Your task to perform on an android device: open app "DuckDuckGo Privacy Browser" Image 0: 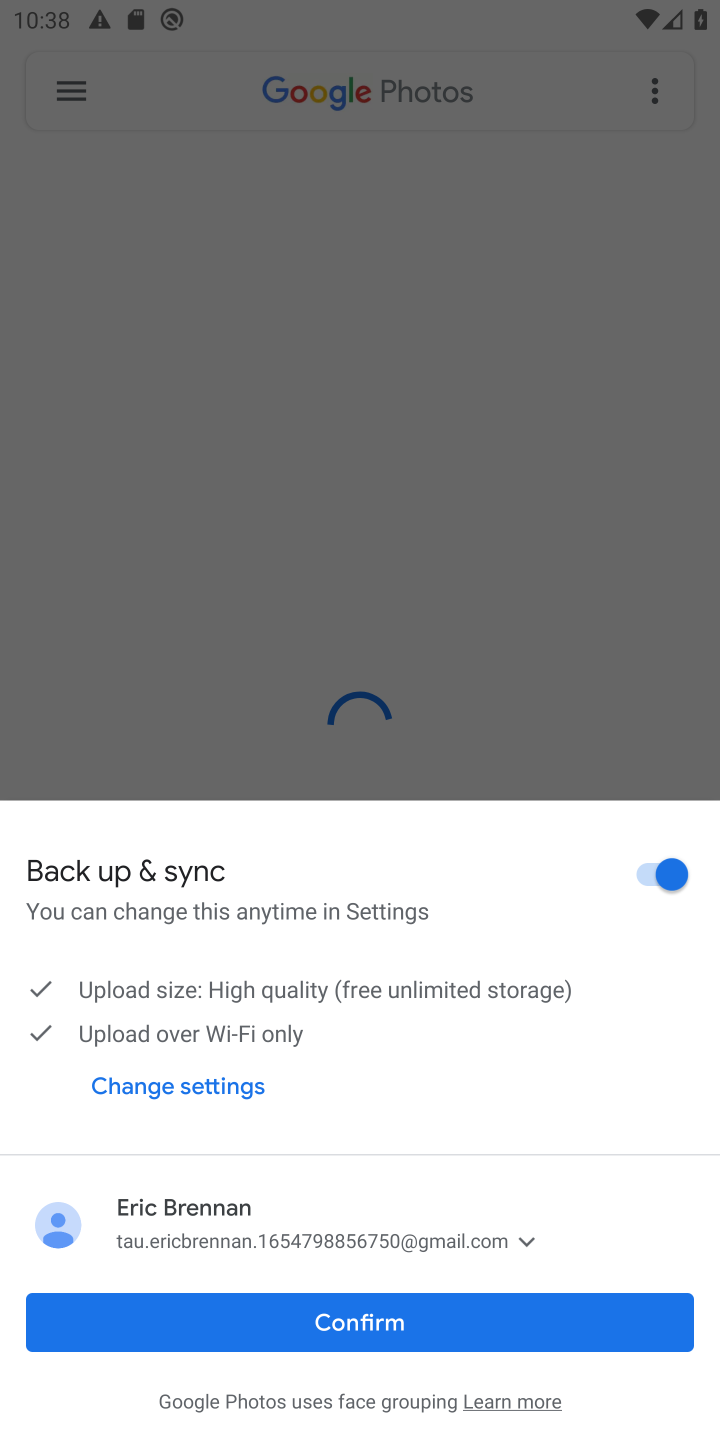
Step 0: press home button
Your task to perform on an android device: open app "DuckDuckGo Privacy Browser" Image 1: 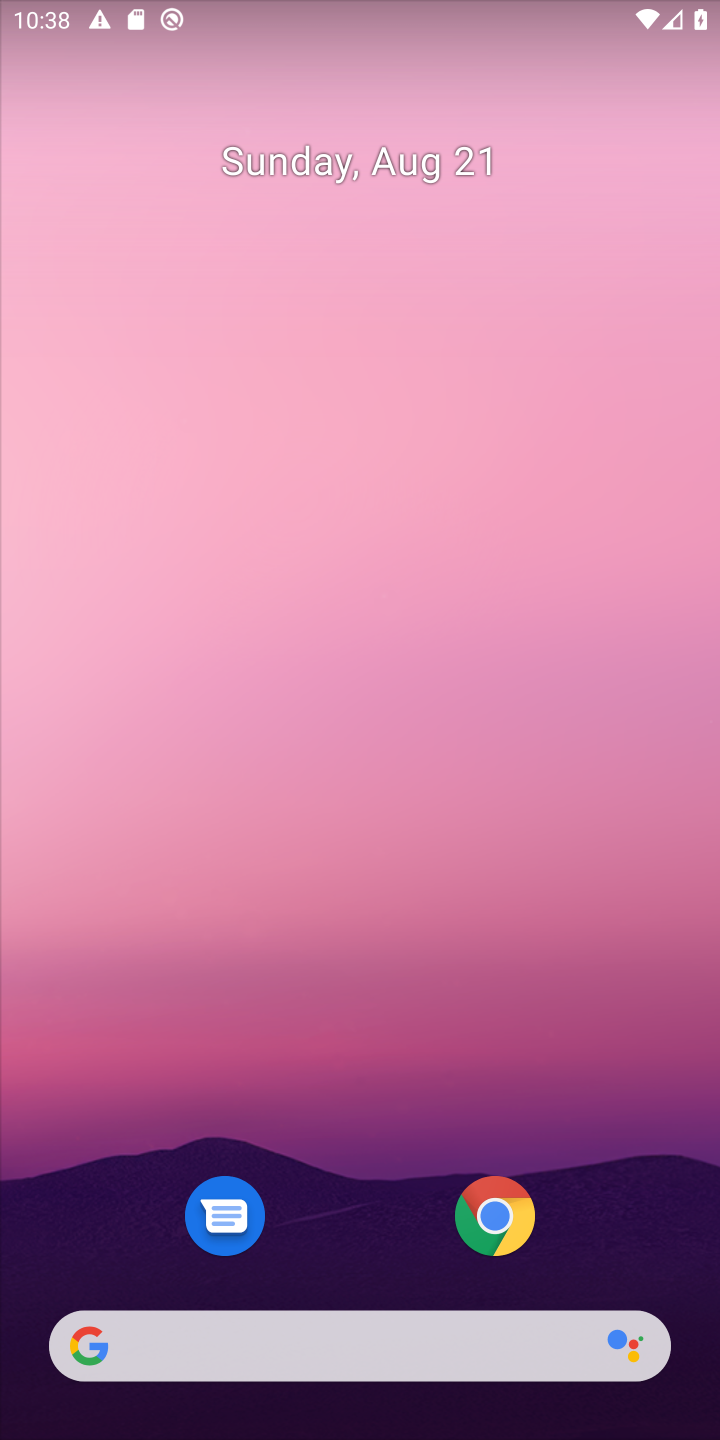
Step 1: drag from (368, 1246) to (493, 183)
Your task to perform on an android device: open app "DuckDuckGo Privacy Browser" Image 2: 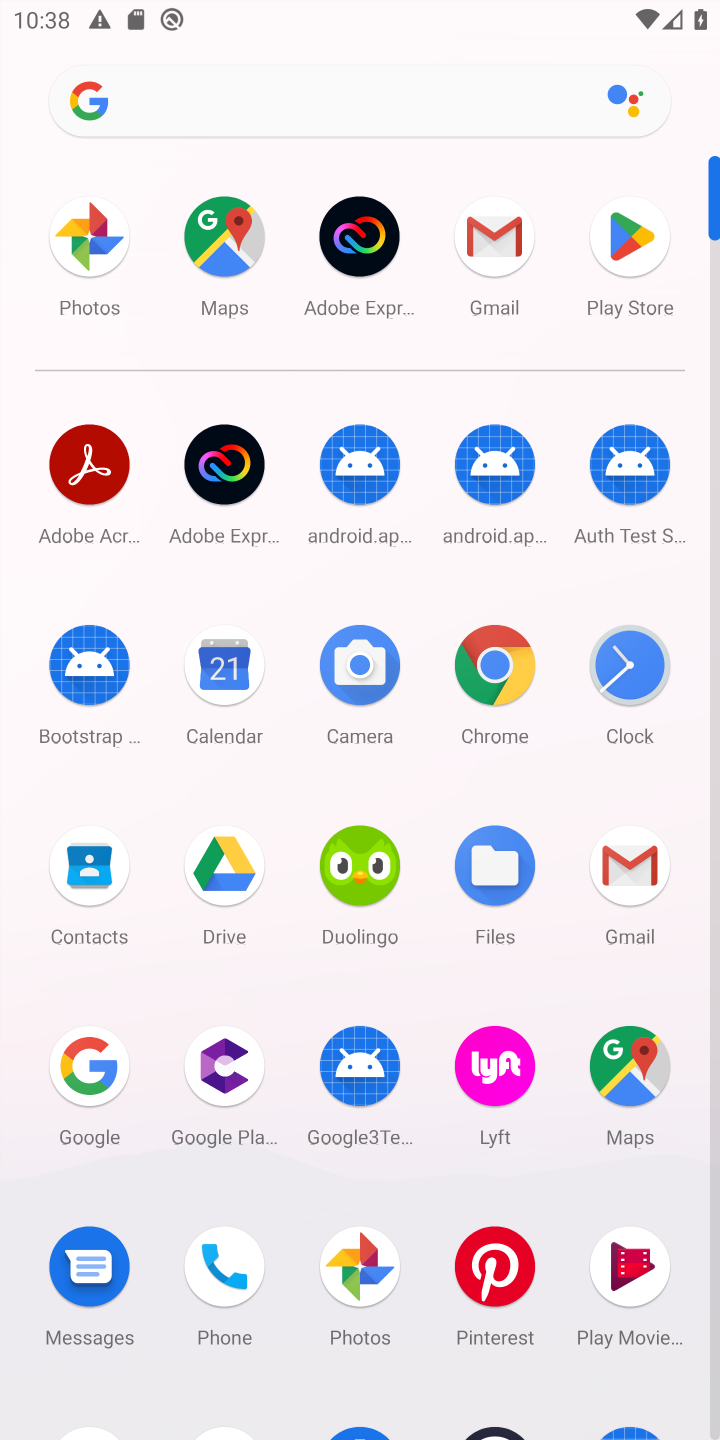
Step 2: click (650, 250)
Your task to perform on an android device: open app "DuckDuckGo Privacy Browser" Image 3: 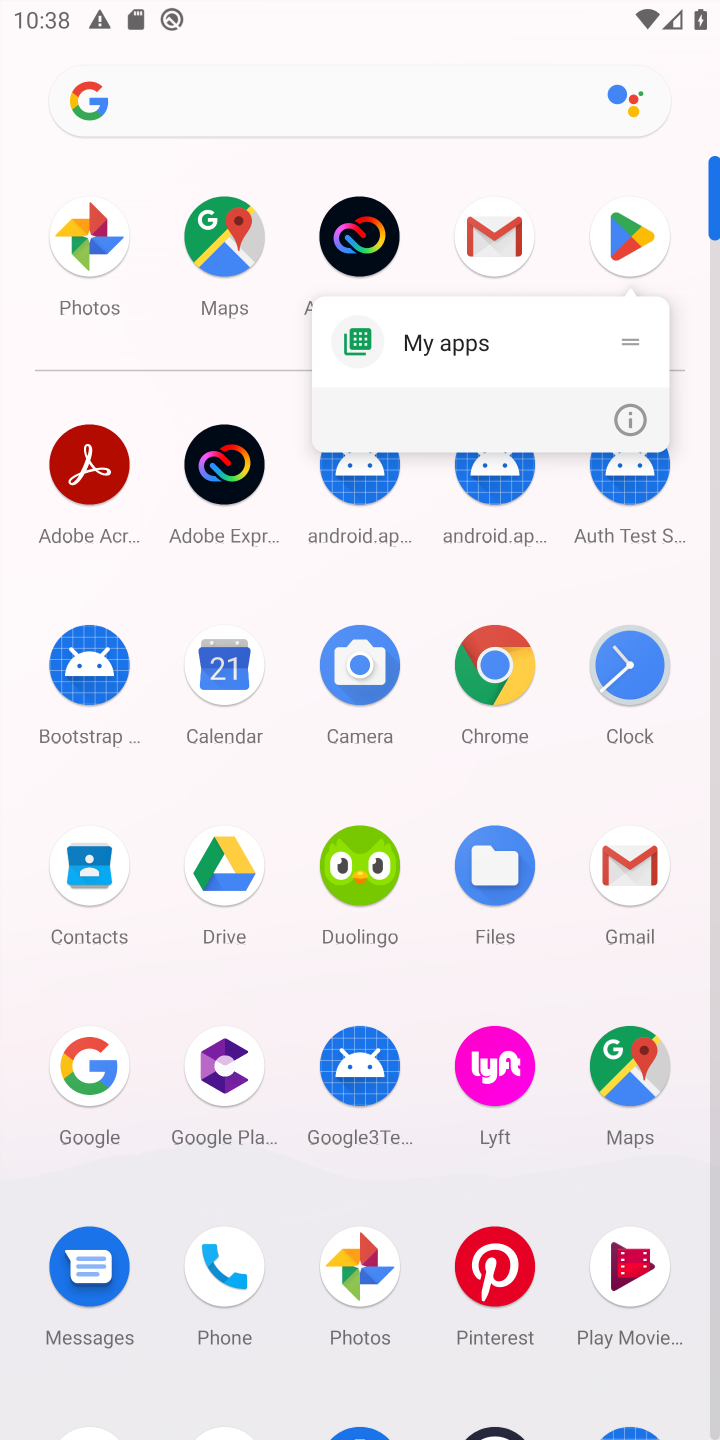
Step 3: click (651, 250)
Your task to perform on an android device: open app "DuckDuckGo Privacy Browser" Image 4: 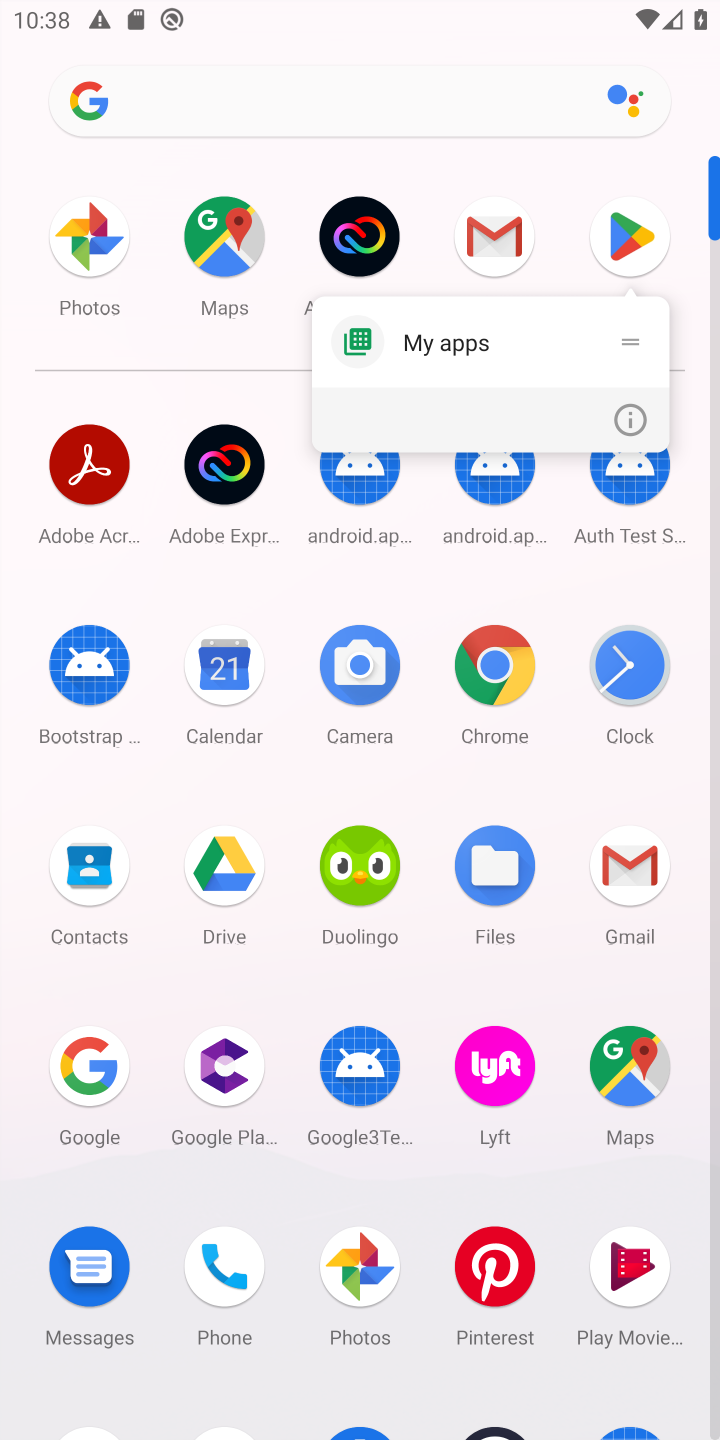
Step 4: click (626, 245)
Your task to perform on an android device: open app "DuckDuckGo Privacy Browser" Image 5: 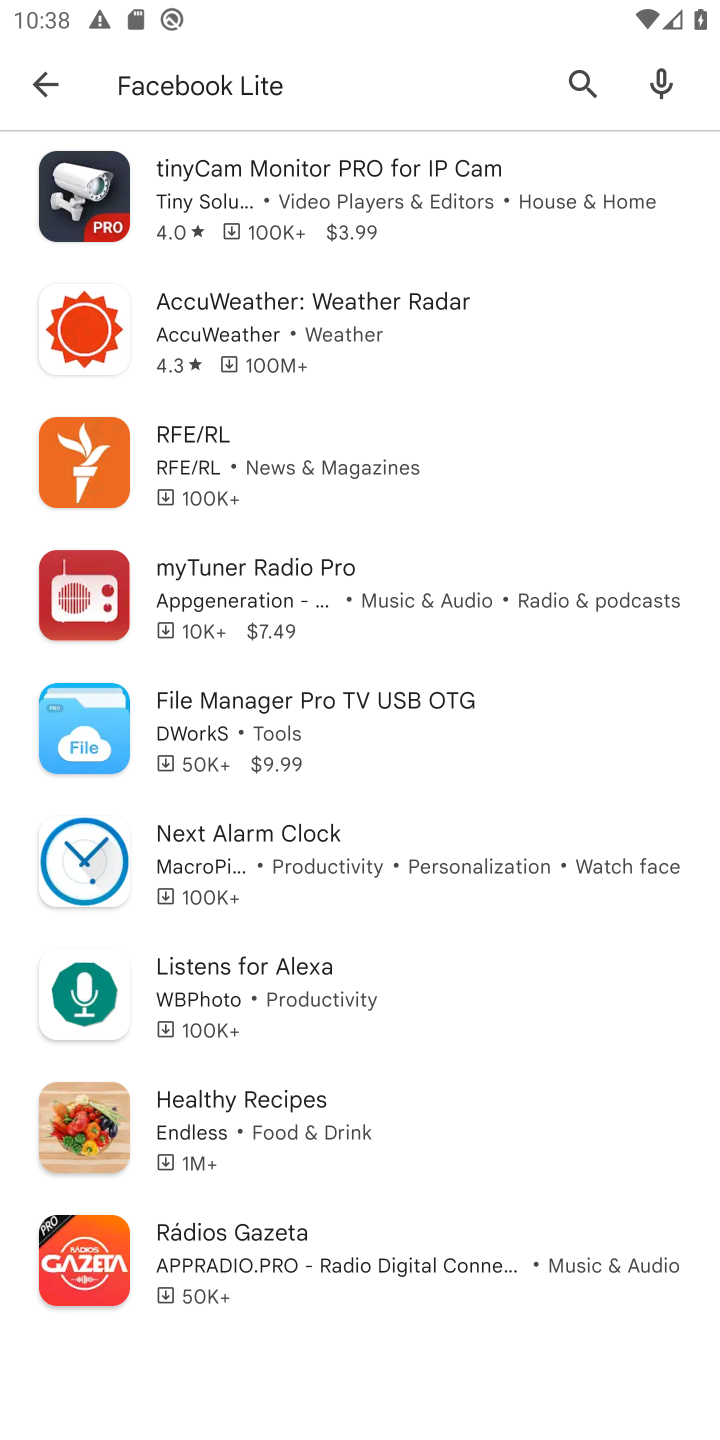
Step 5: press back button
Your task to perform on an android device: open app "DuckDuckGo Privacy Browser" Image 6: 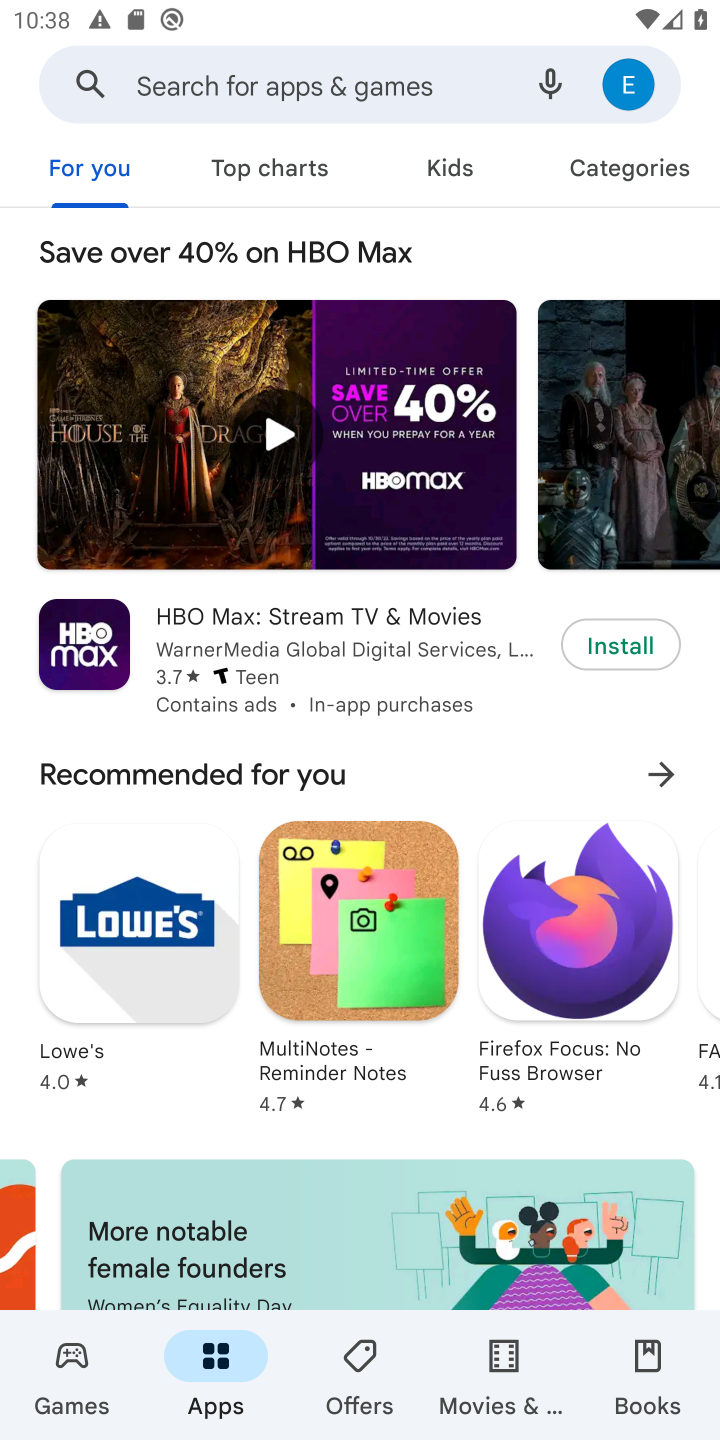
Step 6: click (290, 86)
Your task to perform on an android device: open app "DuckDuckGo Privacy Browser" Image 7: 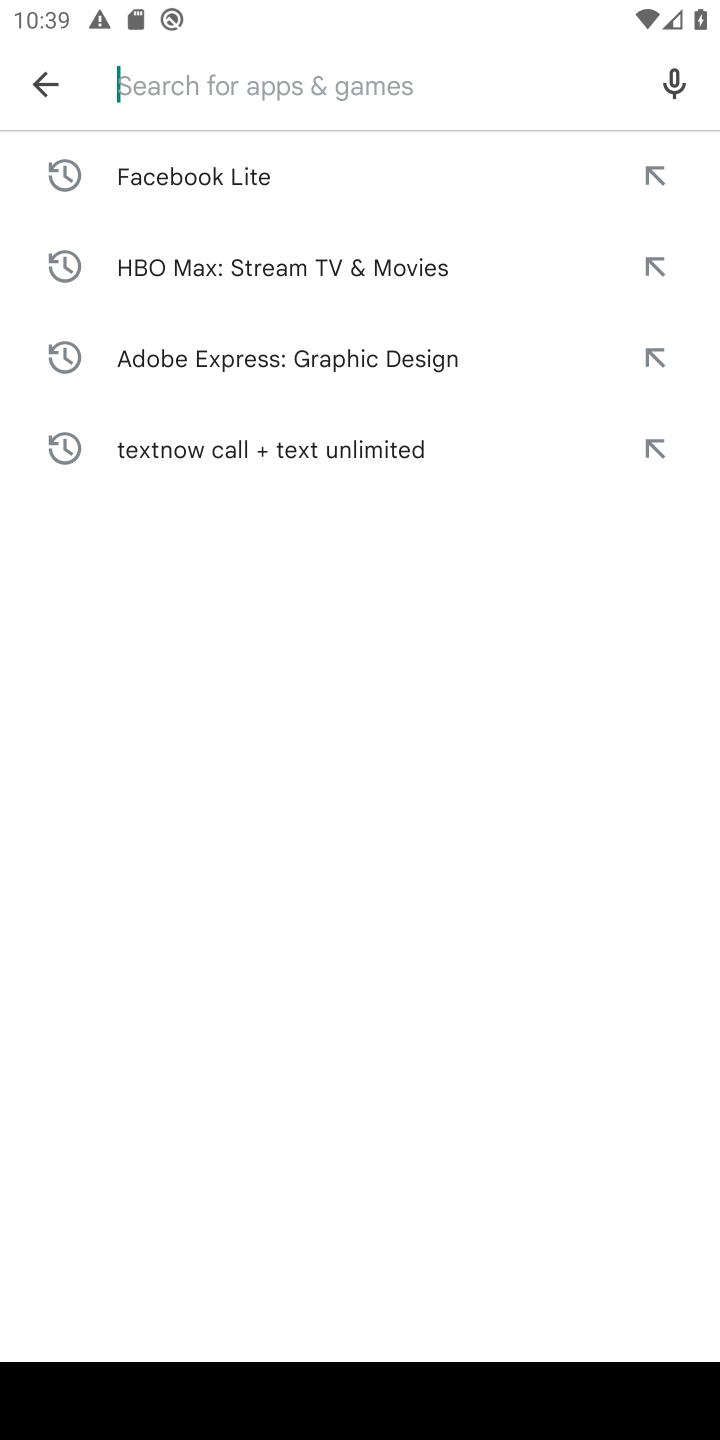
Step 7: type "DuckDuckGo Privacy Browser"
Your task to perform on an android device: open app "DuckDuckGo Privacy Browser" Image 8: 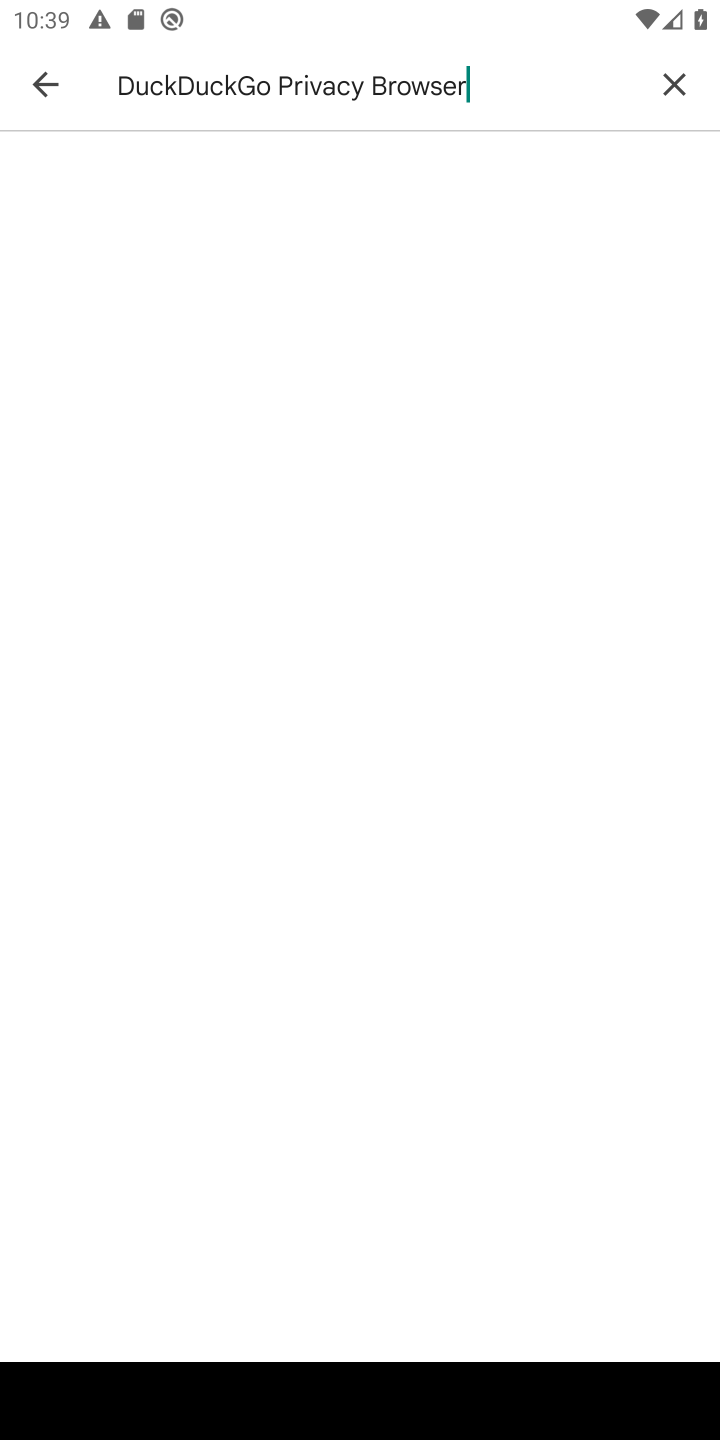
Step 8: press enter
Your task to perform on an android device: open app "DuckDuckGo Privacy Browser" Image 9: 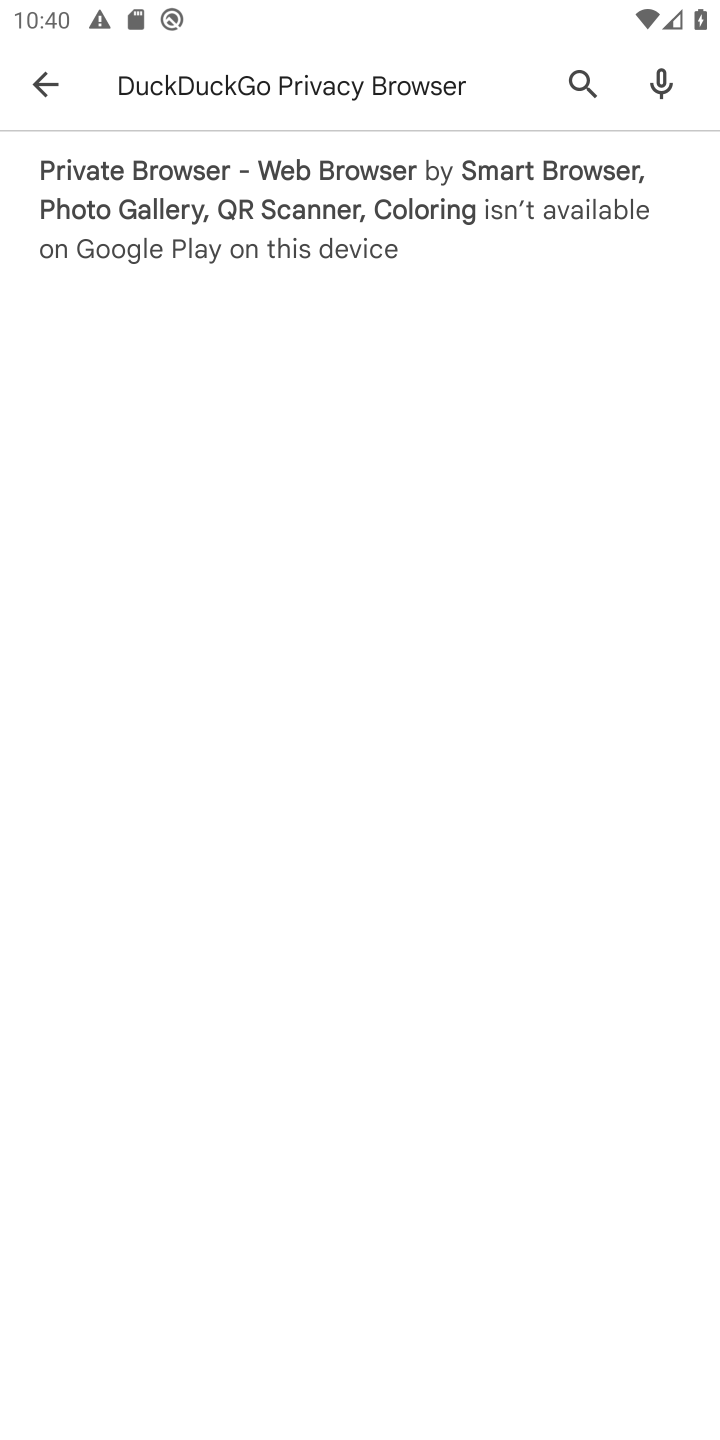
Step 9: task complete